Your task to perform on an android device: Go to Android settings Image 0: 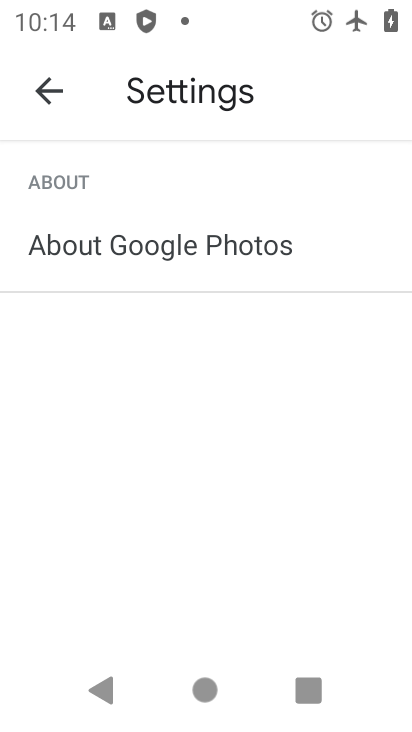
Step 0: press home button
Your task to perform on an android device: Go to Android settings Image 1: 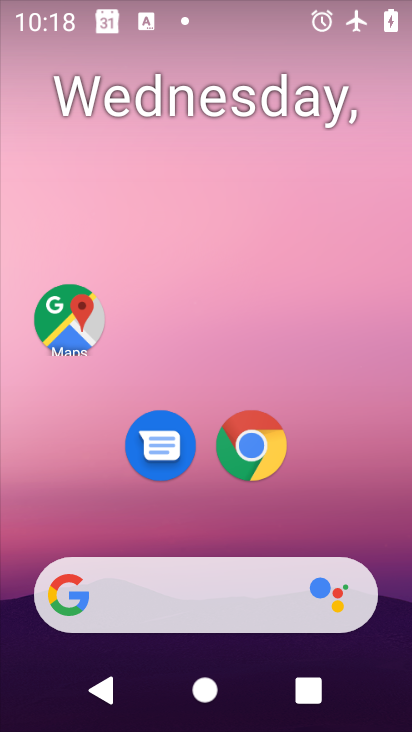
Step 1: drag from (319, 496) to (297, 21)
Your task to perform on an android device: Go to Android settings Image 2: 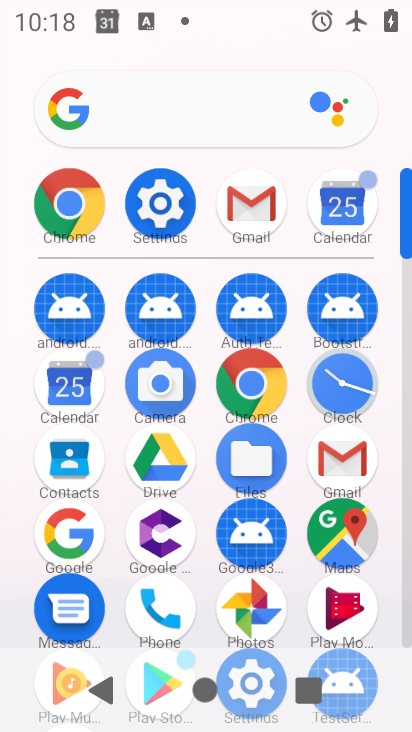
Step 2: click (169, 191)
Your task to perform on an android device: Go to Android settings Image 3: 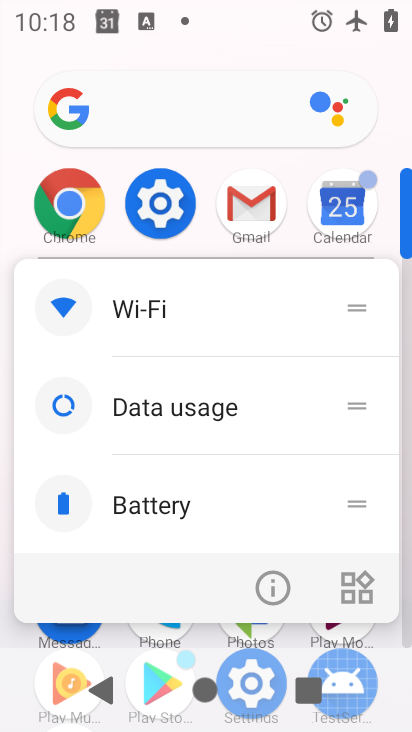
Step 3: click (170, 189)
Your task to perform on an android device: Go to Android settings Image 4: 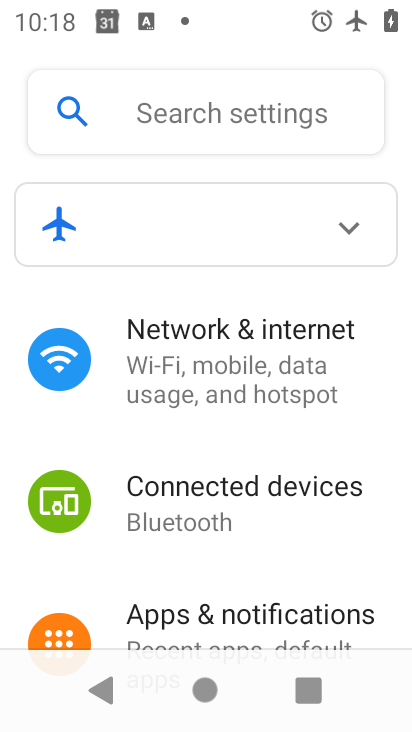
Step 4: task complete